Your task to perform on an android device: Add "lg ultragear" to the cart on walmart.com, then select checkout. Image 0: 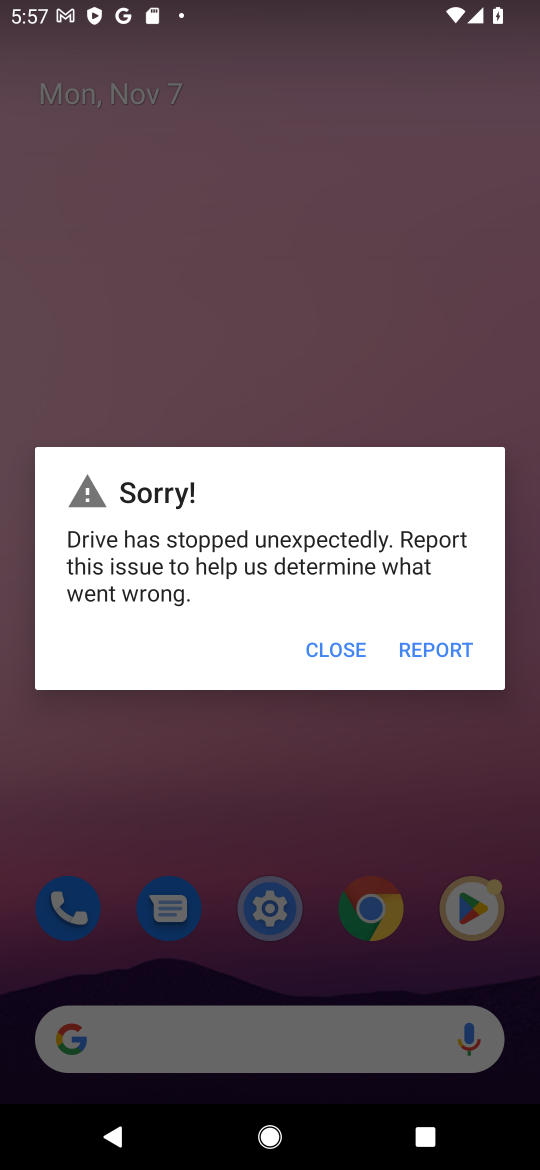
Step 0: press home button
Your task to perform on an android device: Add "lg ultragear" to the cart on walmart.com, then select checkout. Image 1: 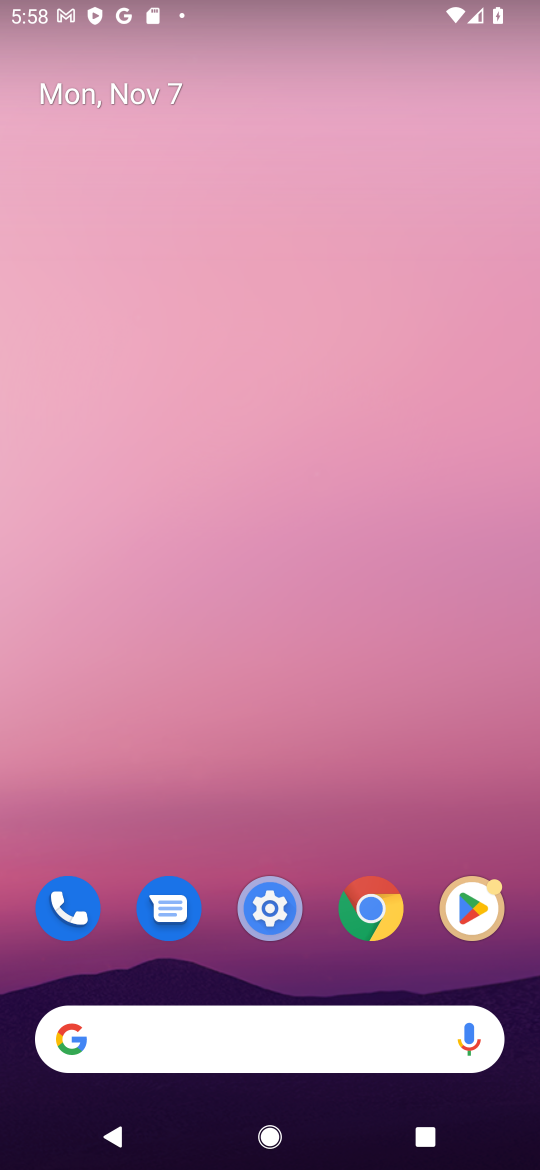
Step 1: click (181, 1051)
Your task to perform on an android device: Add "lg ultragear" to the cart on walmart.com, then select checkout. Image 2: 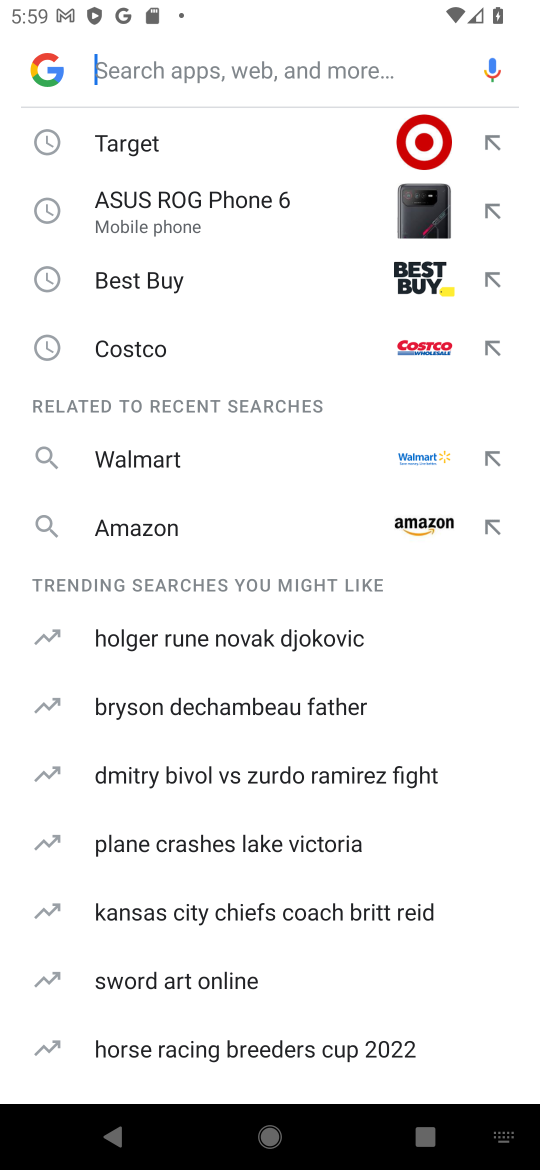
Step 2: click (198, 139)
Your task to perform on an android device: Add "lg ultragear" to the cart on walmart.com, then select checkout. Image 3: 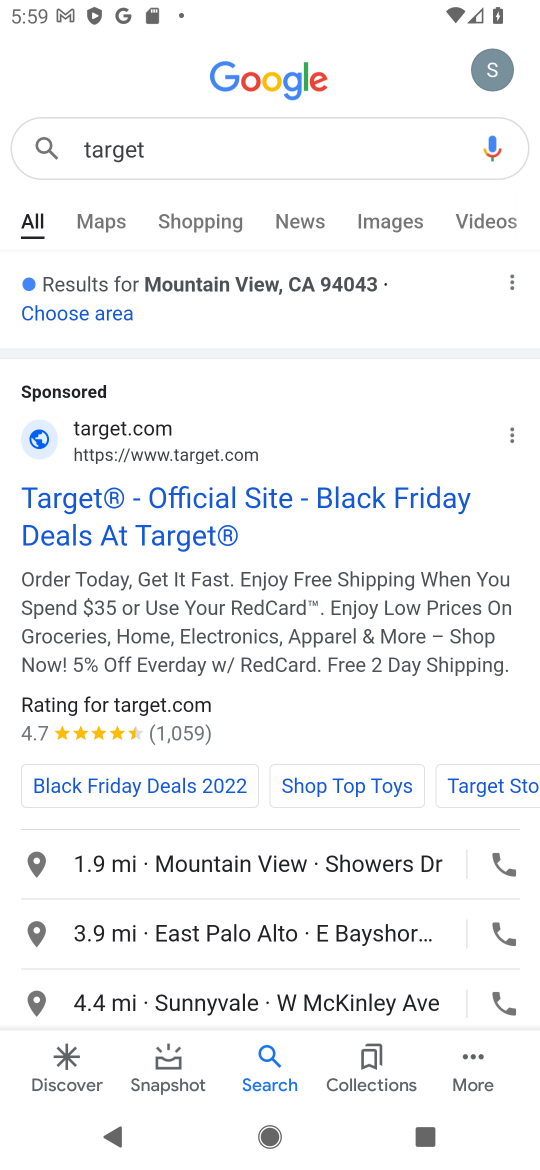
Step 3: click (166, 527)
Your task to perform on an android device: Add "lg ultragear" to the cart on walmart.com, then select checkout. Image 4: 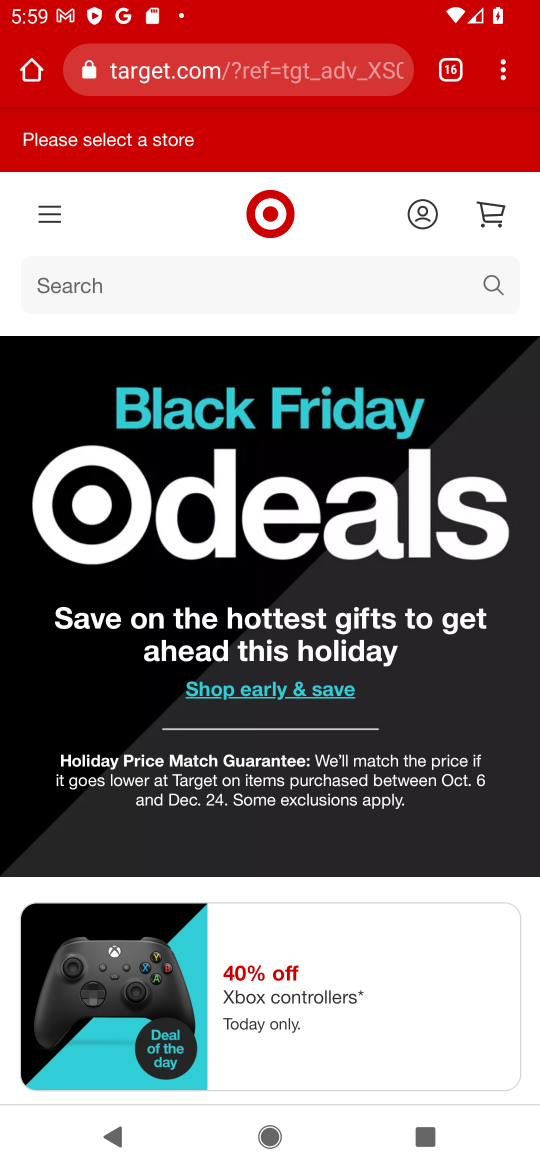
Step 4: task complete